Your task to perform on an android device: Show me popular games on the Play Store Image 0: 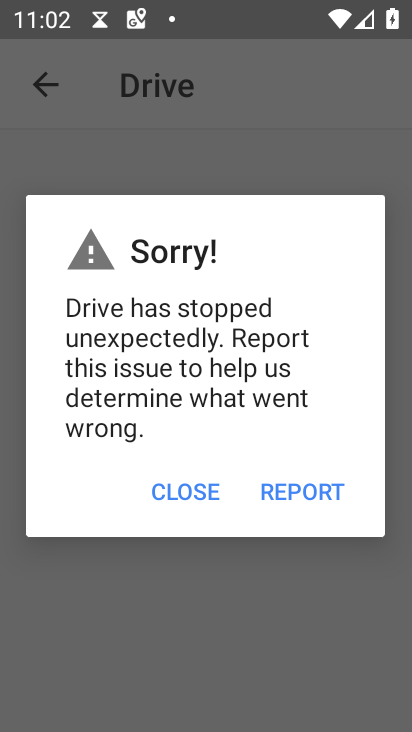
Step 0: press home button
Your task to perform on an android device: Show me popular games on the Play Store Image 1: 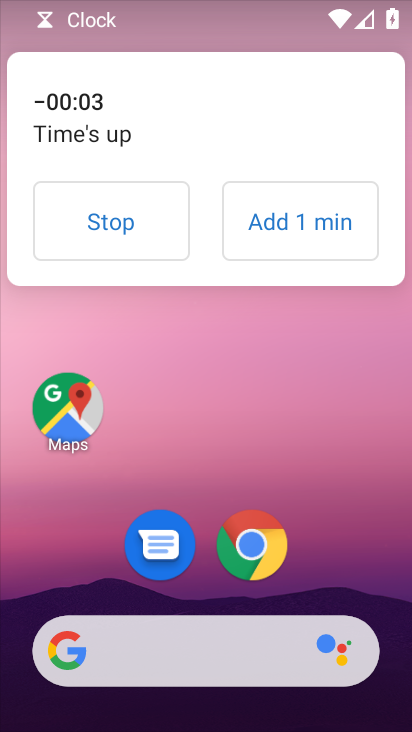
Step 1: click (110, 222)
Your task to perform on an android device: Show me popular games on the Play Store Image 2: 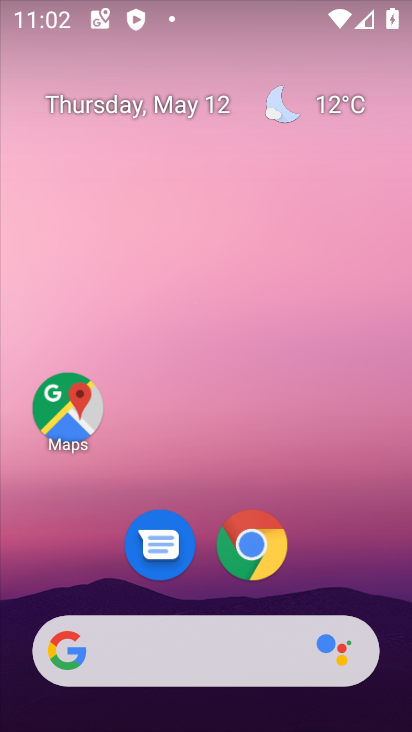
Step 2: drag from (208, 586) to (206, 74)
Your task to perform on an android device: Show me popular games on the Play Store Image 3: 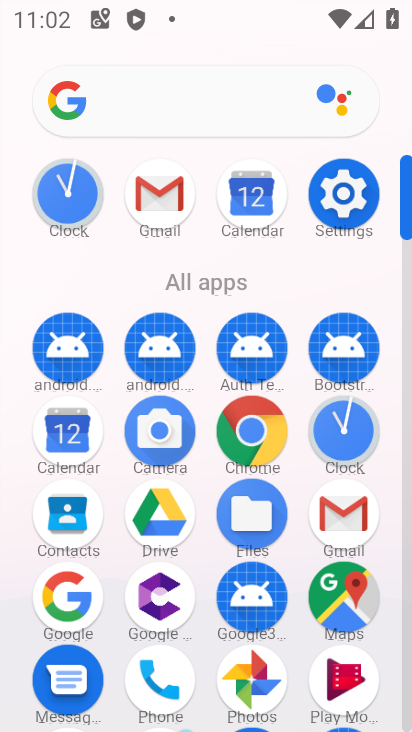
Step 3: drag from (201, 645) to (209, 146)
Your task to perform on an android device: Show me popular games on the Play Store Image 4: 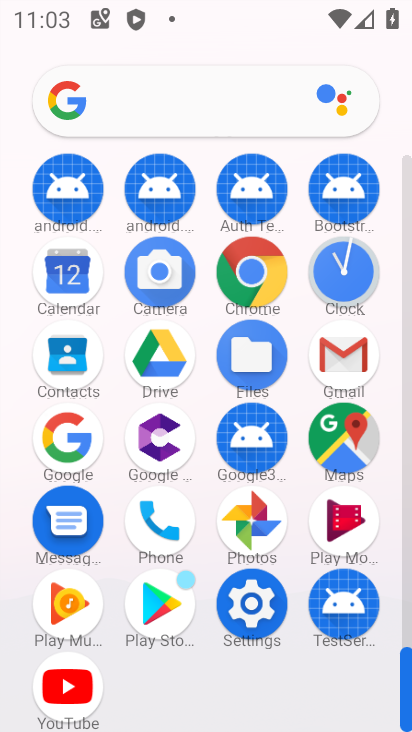
Step 4: click (158, 601)
Your task to perform on an android device: Show me popular games on the Play Store Image 5: 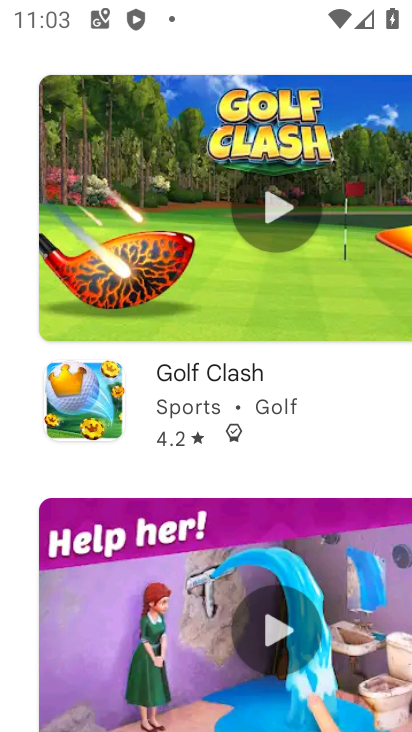
Step 5: press back button
Your task to perform on an android device: Show me popular games on the Play Store Image 6: 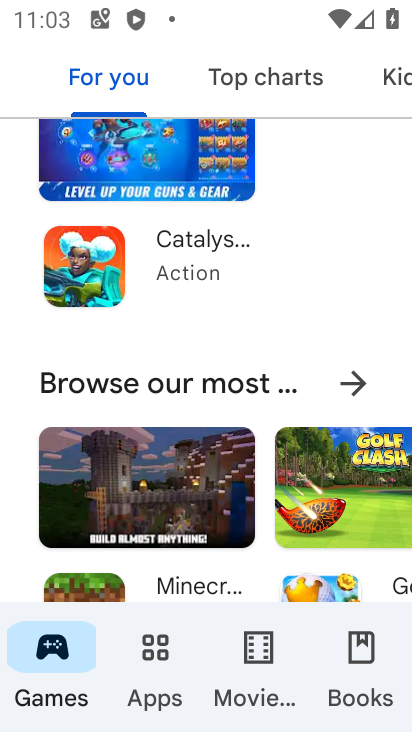
Step 6: click (360, 387)
Your task to perform on an android device: Show me popular games on the Play Store Image 7: 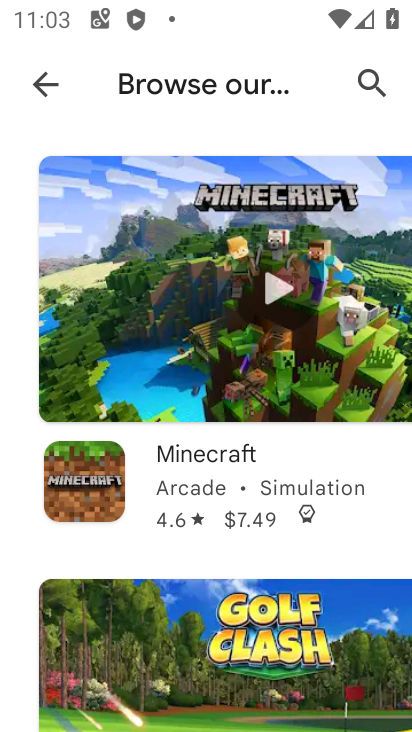
Step 7: task complete